Your task to perform on an android device: turn on priority inbox in the gmail app Image 0: 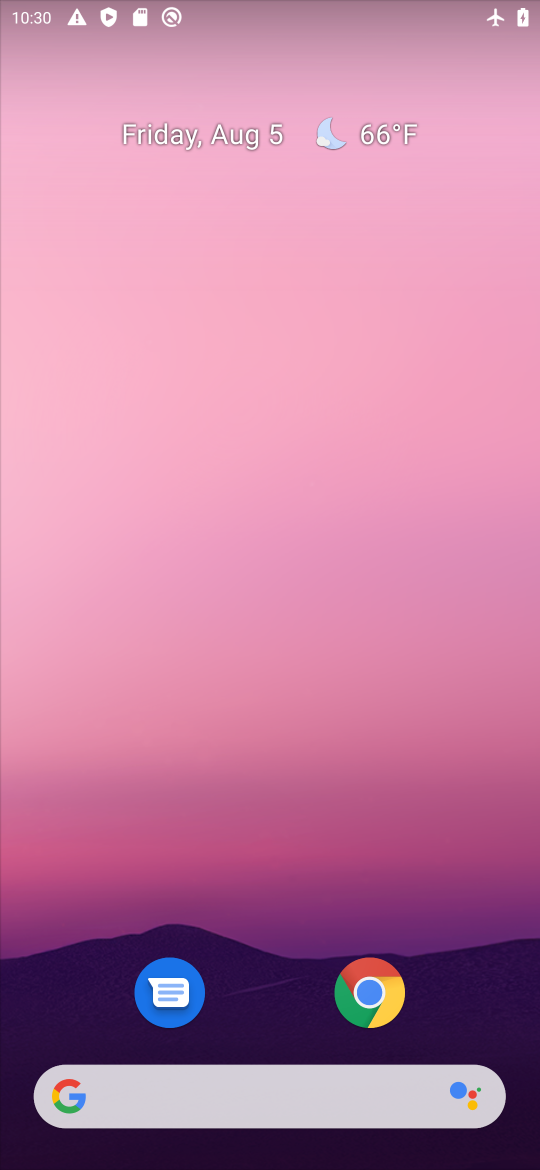
Step 0: drag from (263, 1077) to (323, 391)
Your task to perform on an android device: turn on priority inbox in the gmail app Image 1: 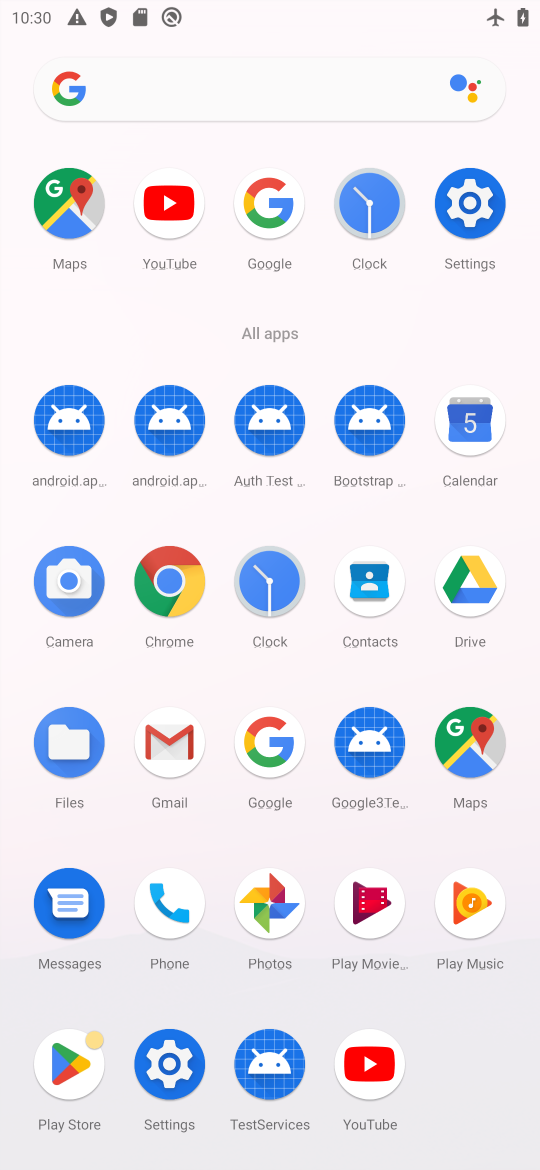
Step 1: drag from (334, 1058) to (363, 650)
Your task to perform on an android device: turn on priority inbox in the gmail app Image 2: 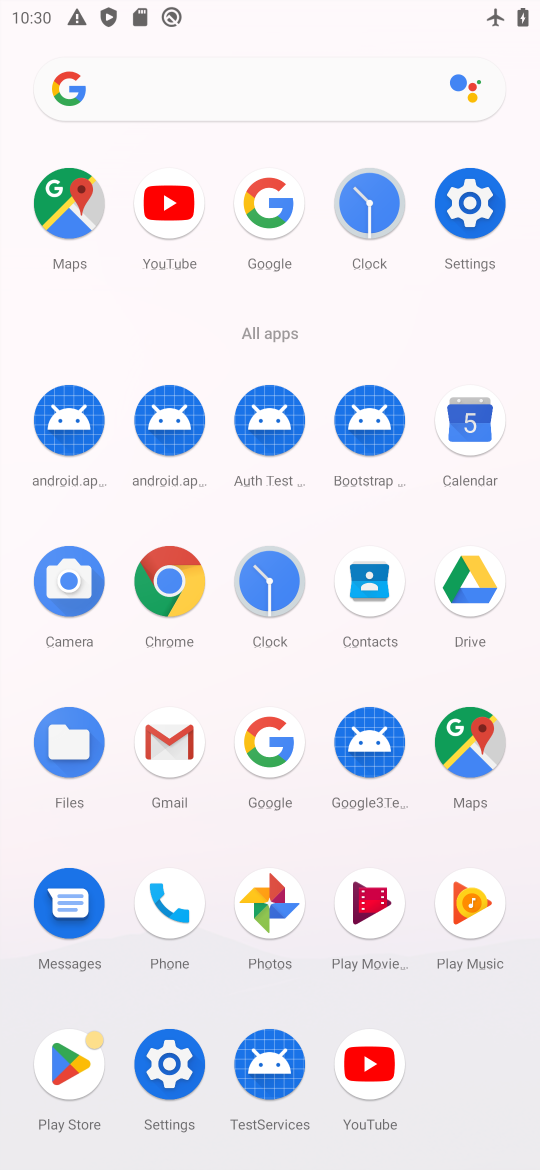
Step 2: click (165, 766)
Your task to perform on an android device: turn on priority inbox in the gmail app Image 3: 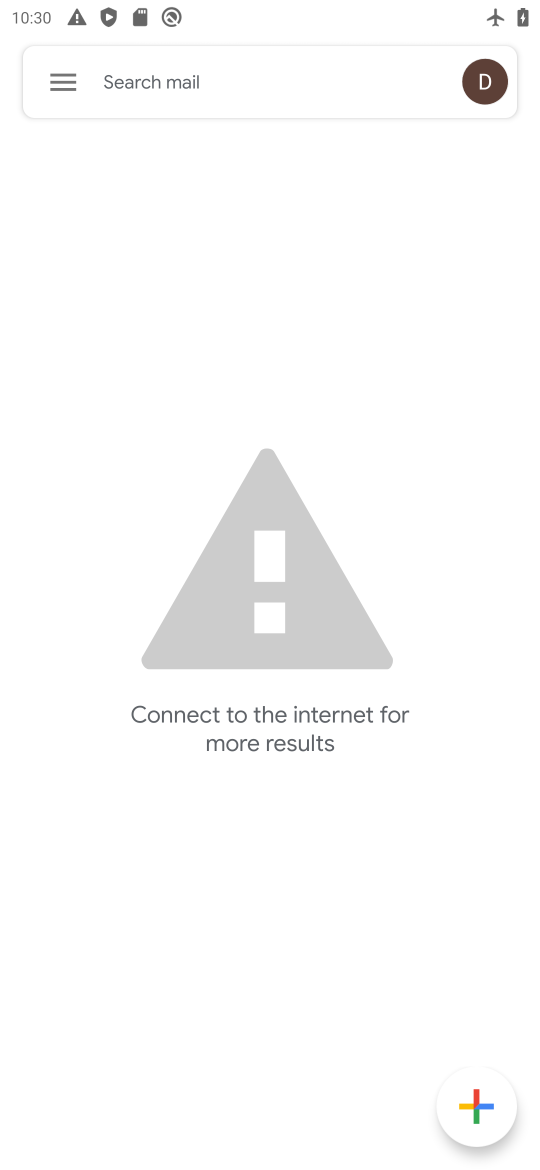
Step 3: click (65, 73)
Your task to perform on an android device: turn on priority inbox in the gmail app Image 4: 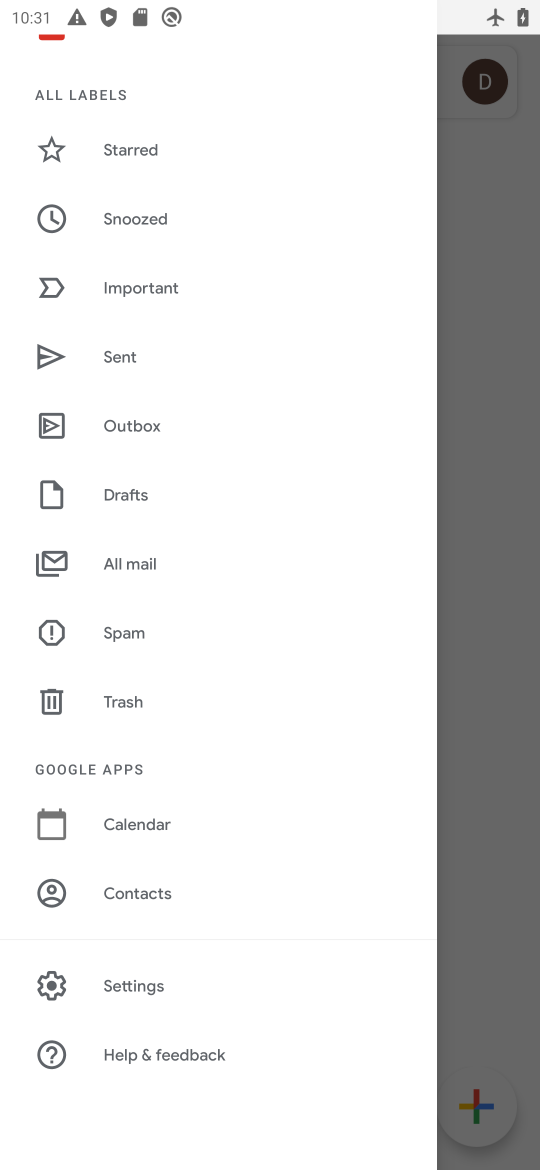
Step 4: click (134, 978)
Your task to perform on an android device: turn on priority inbox in the gmail app Image 5: 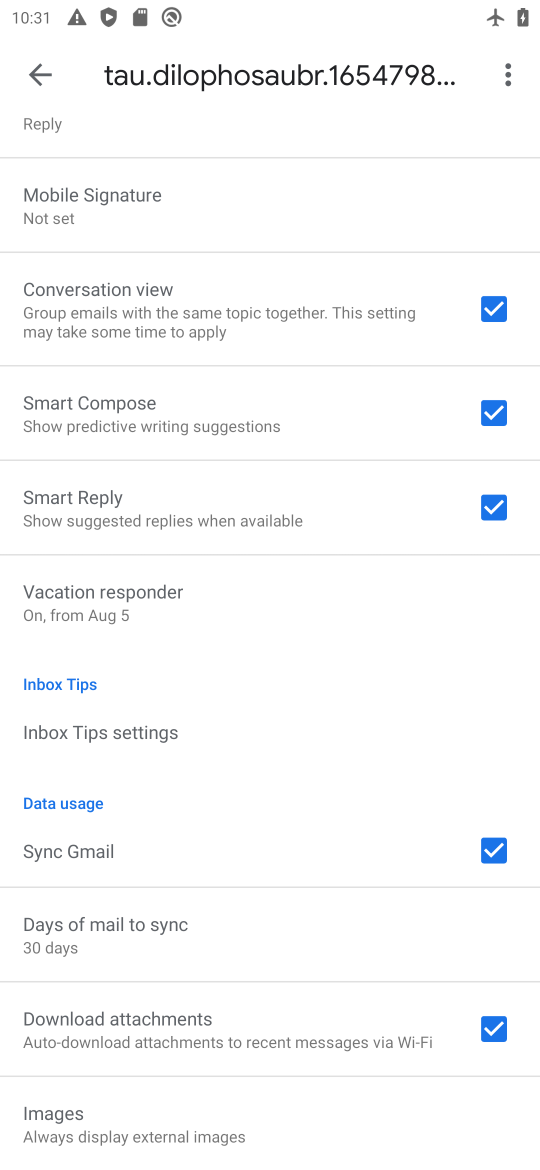
Step 5: drag from (199, 823) to (201, 1036)
Your task to perform on an android device: turn on priority inbox in the gmail app Image 6: 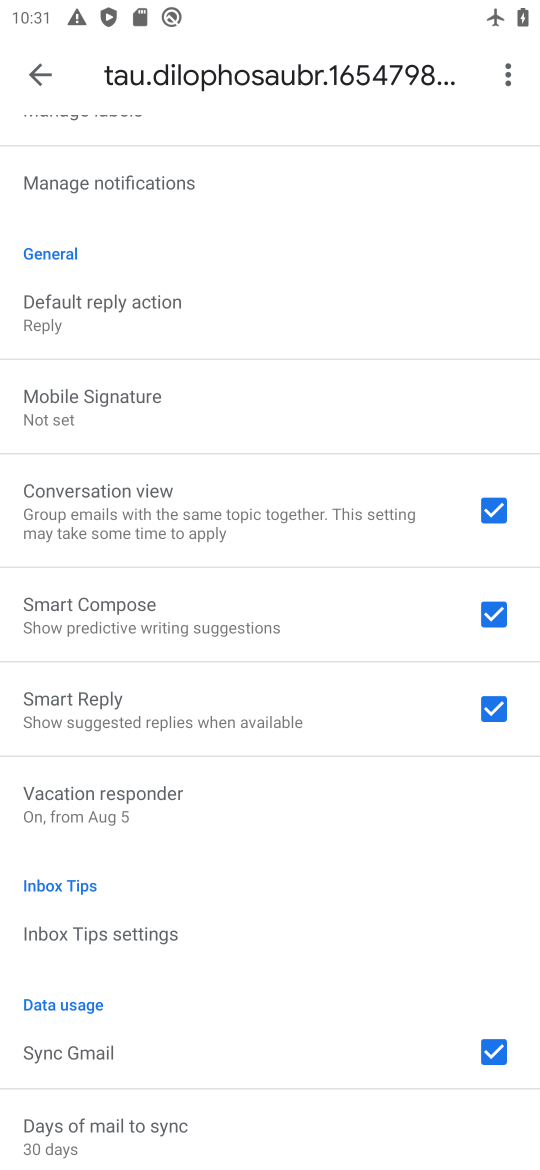
Step 6: drag from (238, 642) to (238, 1098)
Your task to perform on an android device: turn on priority inbox in the gmail app Image 7: 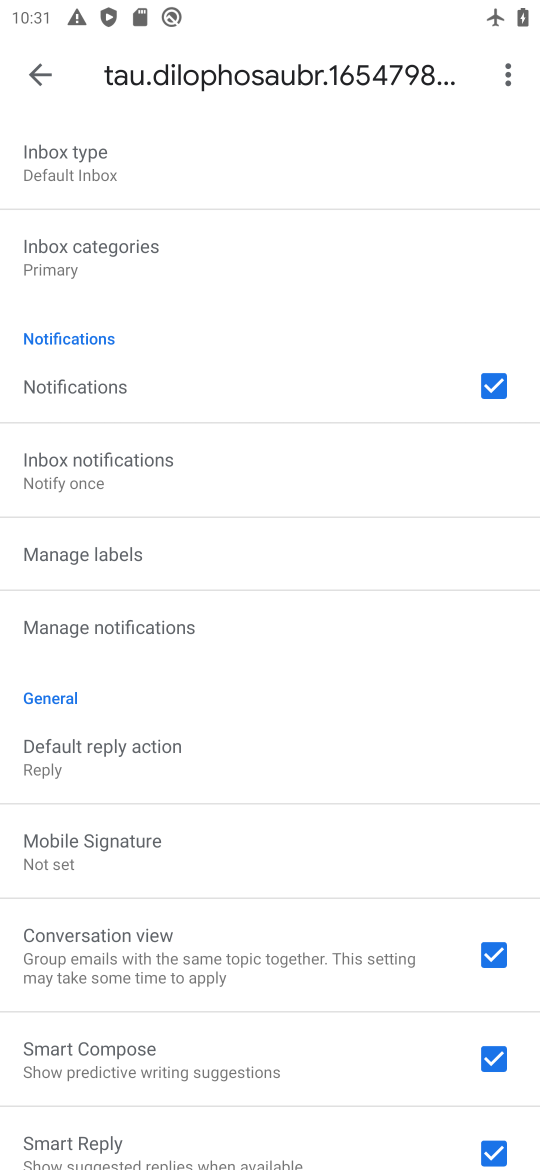
Step 7: drag from (203, 480) to (156, 904)
Your task to perform on an android device: turn on priority inbox in the gmail app Image 8: 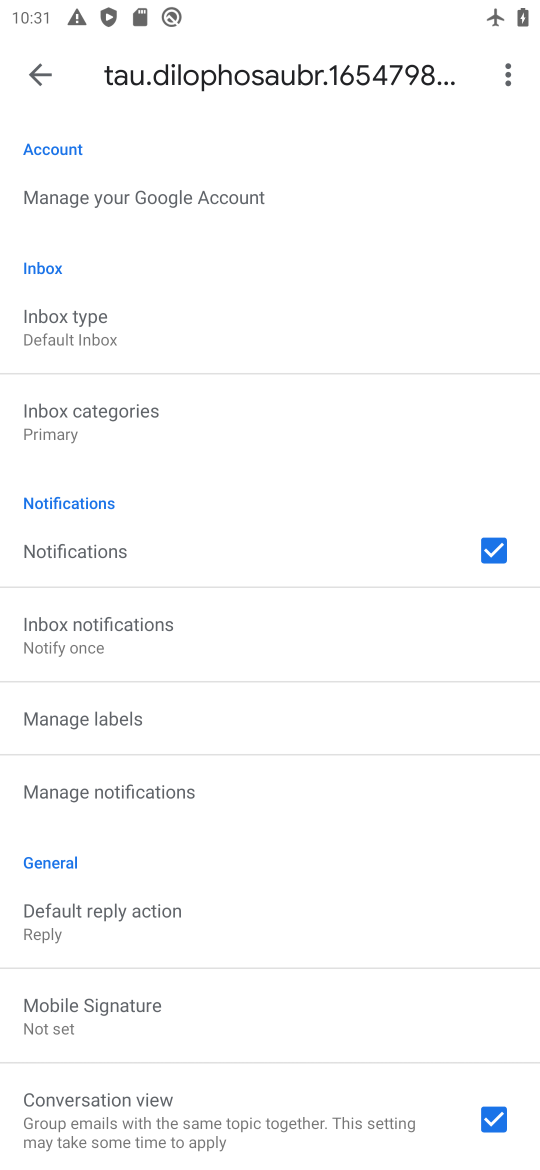
Step 8: click (73, 342)
Your task to perform on an android device: turn on priority inbox in the gmail app Image 9: 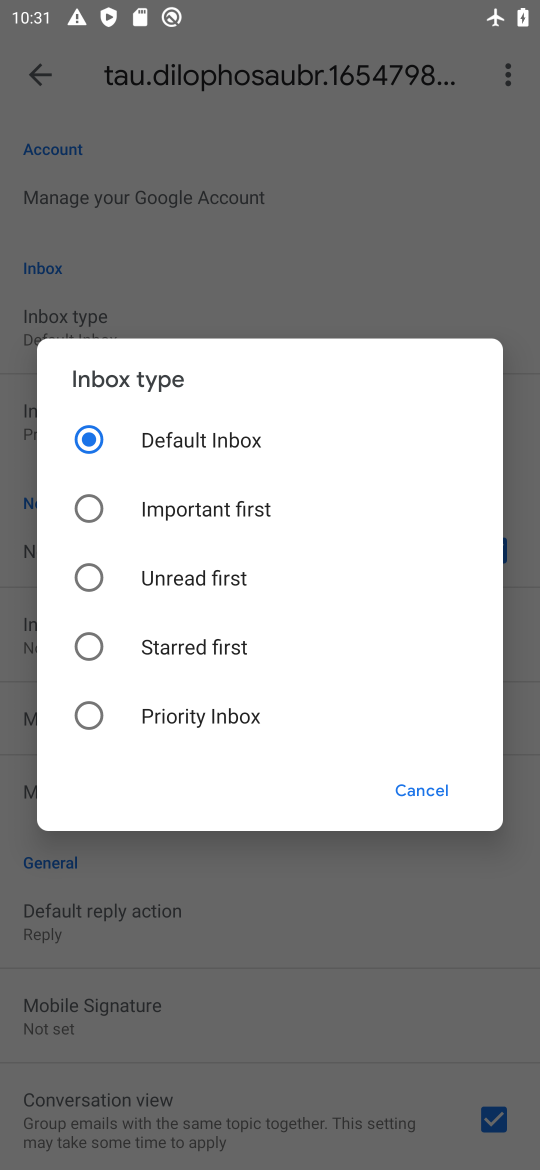
Step 9: click (83, 700)
Your task to perform on an android device: turn on priority inbox in the gmail app Image 10: 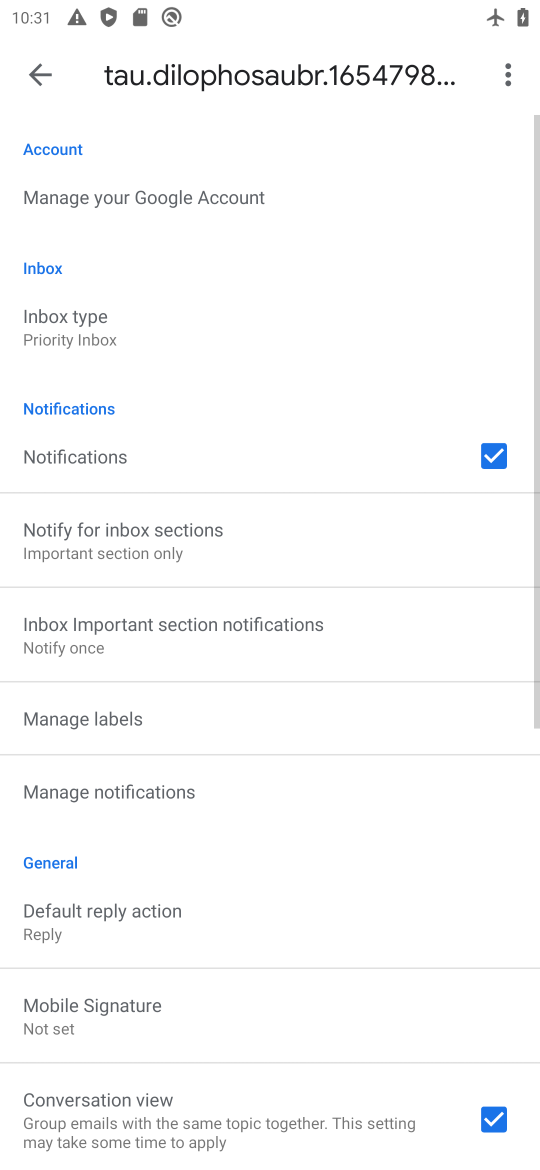
Step 10: task complete